Your task to perform on an android device: Open Youtube and go to the subscriptions tab Image 0: 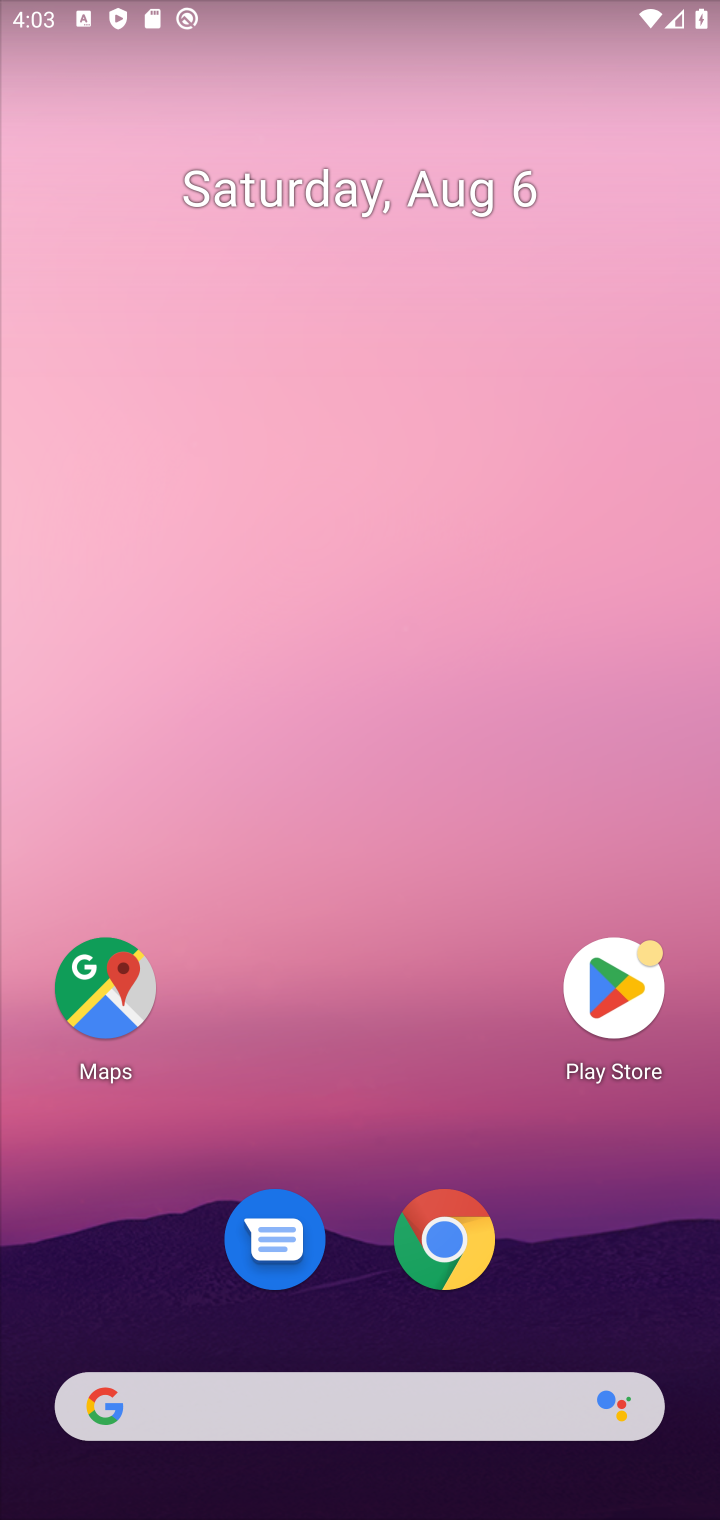
Step 0: drag from (451, 1398) to (390, 293)
Your task to perform on an android device: Open Youtube and go to the subscriptions tab Image 1: 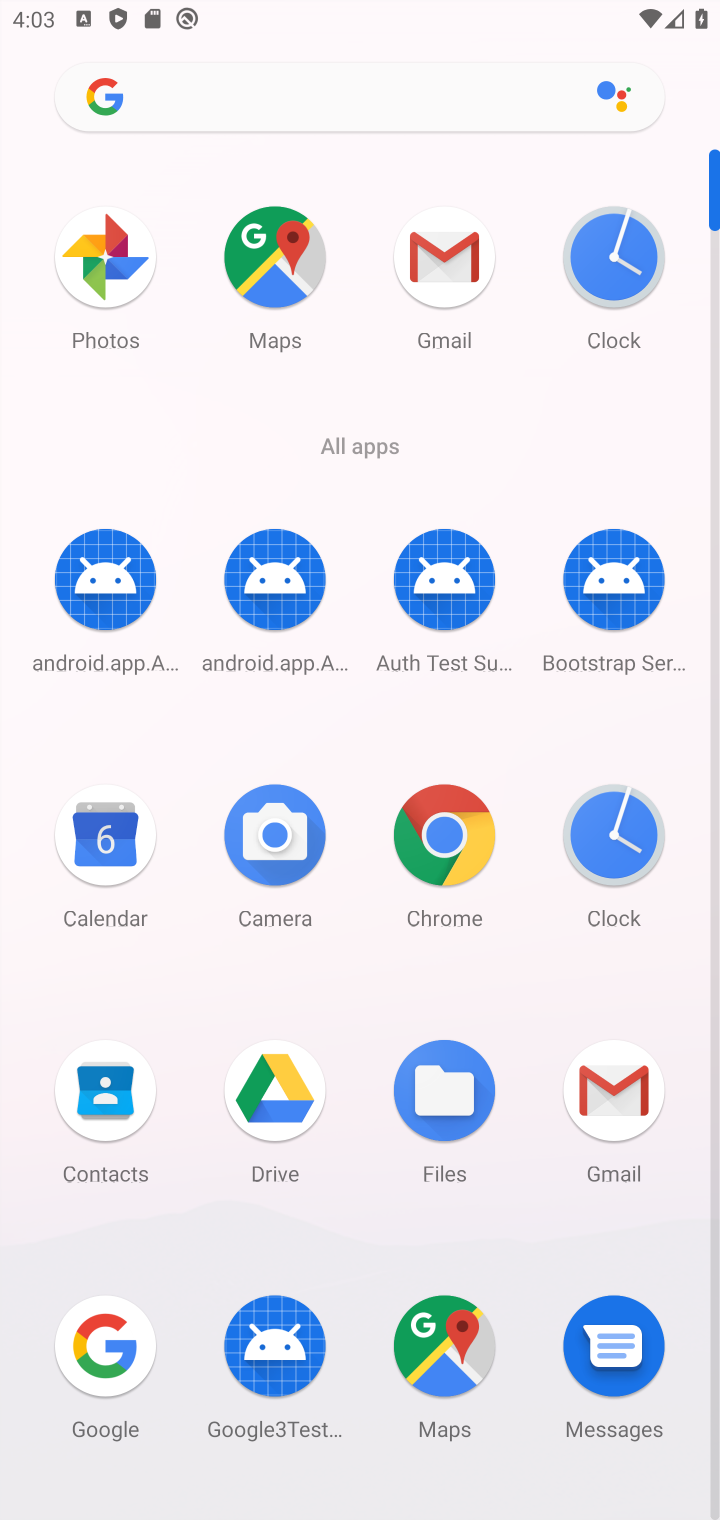
Step 1: drag from (513, 1225) to (526, 502)
Your task to perform on an android device: Open Youtube and go to the subscriptions tab Image 2: 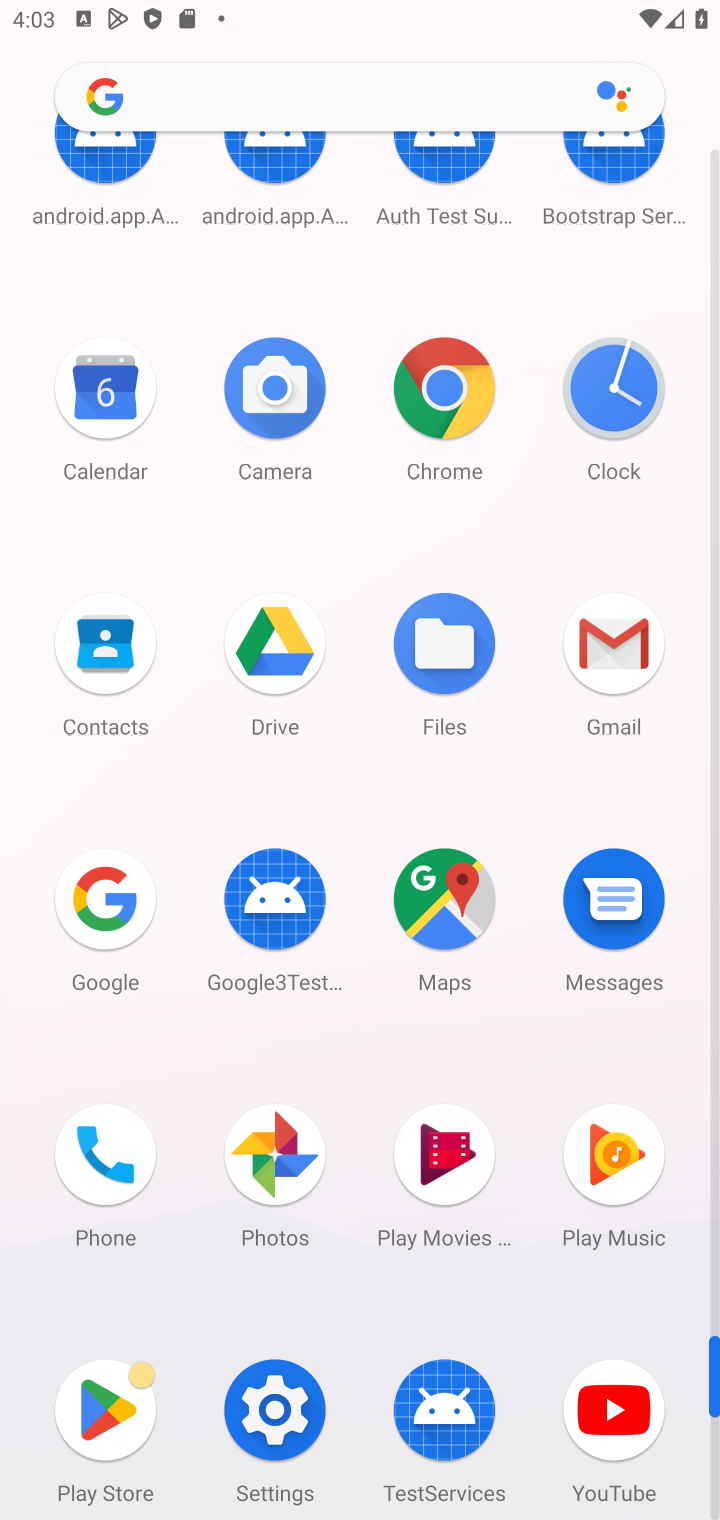
Step 2: click (596, 1391)
Your task to perform on an android device: Open Youtube and go to the subscriptions tab Image 3: 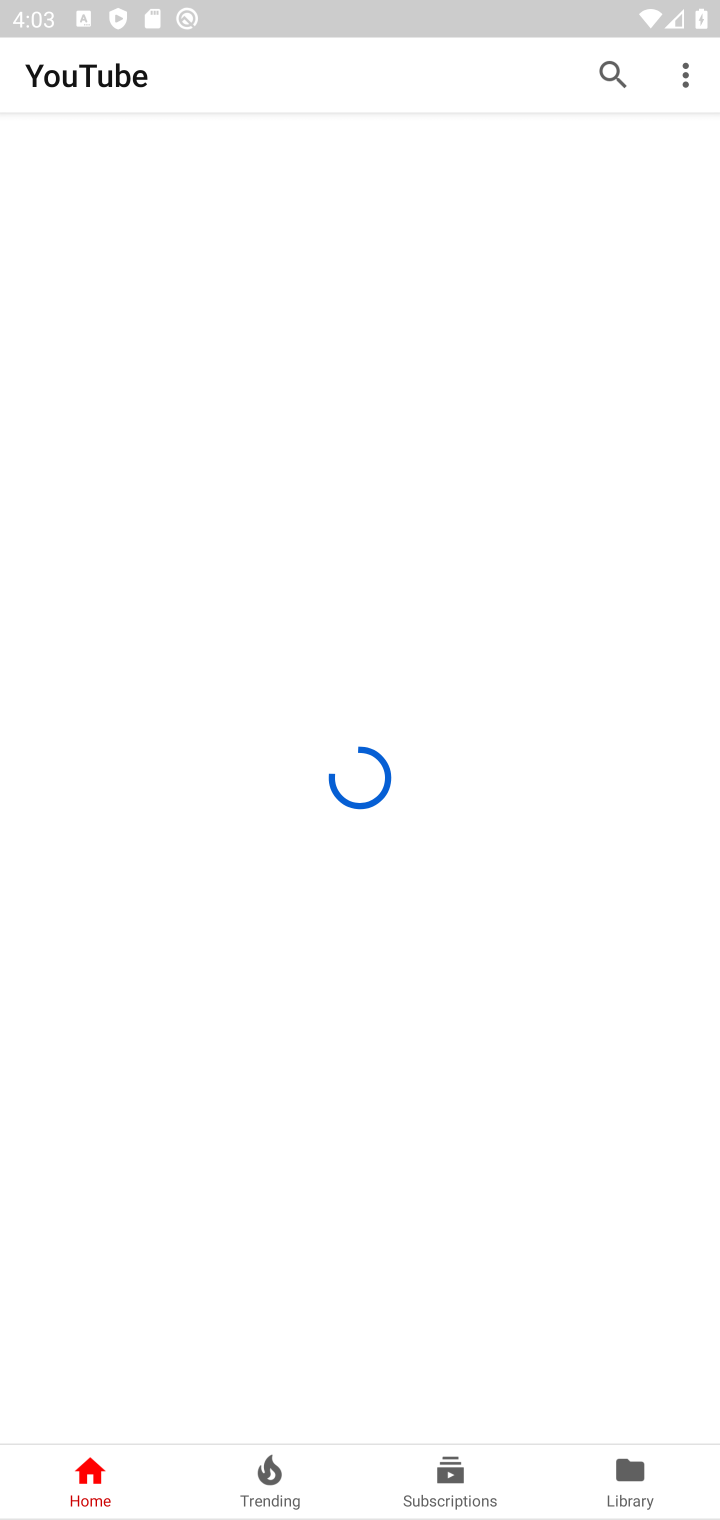
Step 3: click (435, 1478)
Your task to perform on an android device: Open Youtube and go to the subscriptions tab Image 4: 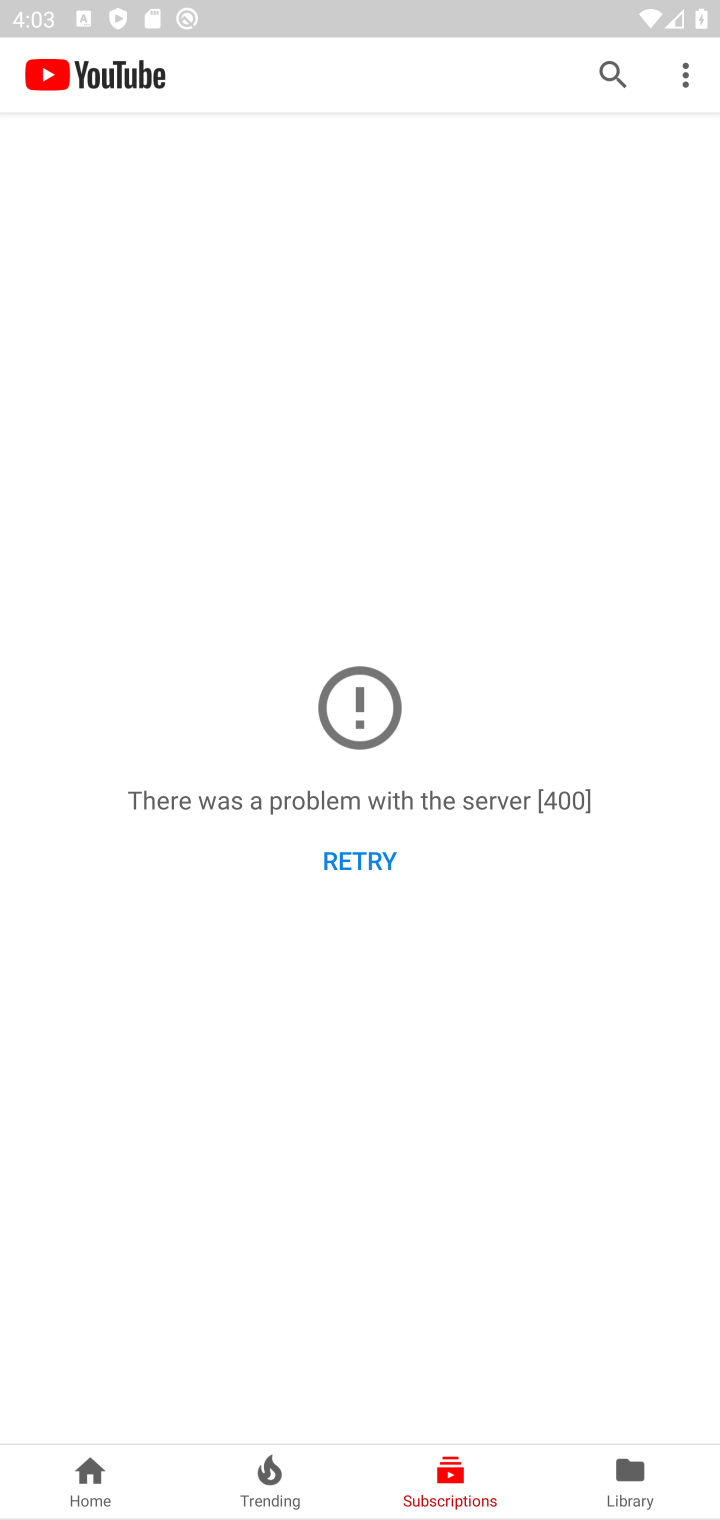
Step 4: task complete